Your task to perform on an android device: Open the phone app and click the voicemail tab. Image 0: 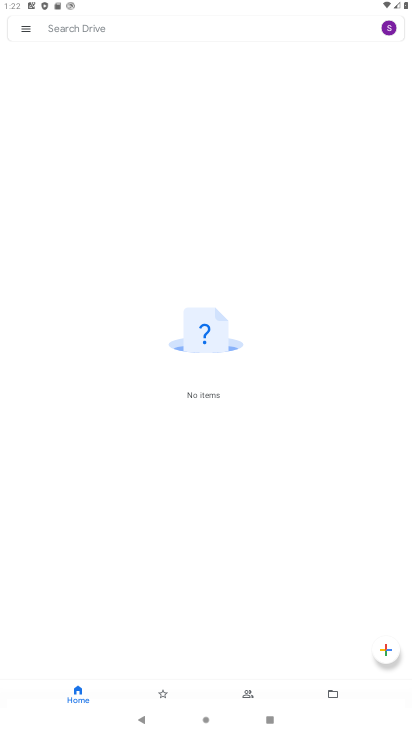
Step 0: press home button
Your task to perform on an android device: Open the phone app and click the voicemail tab. Image 1: 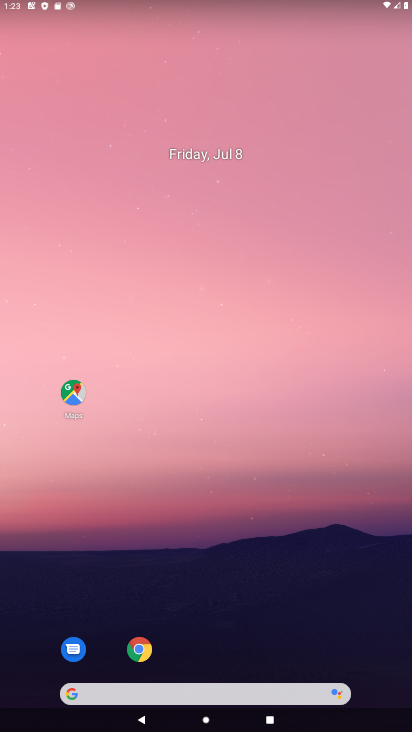
Step 1: drag from (23, 714) to (278, 147)
Your task to perform on an android device: Open the phone app and click the voicemail tab. Image 2: 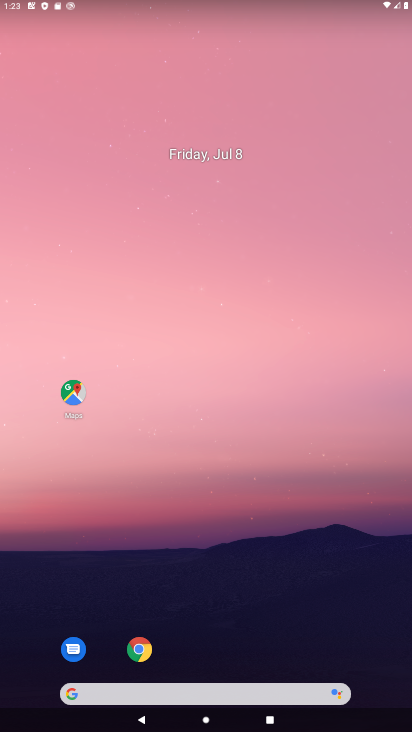
Step 2: drag from (45, 694) to (396, 0)
Your task to perform on an android device: Open the phone app and click the voicemail tab. Image 3: 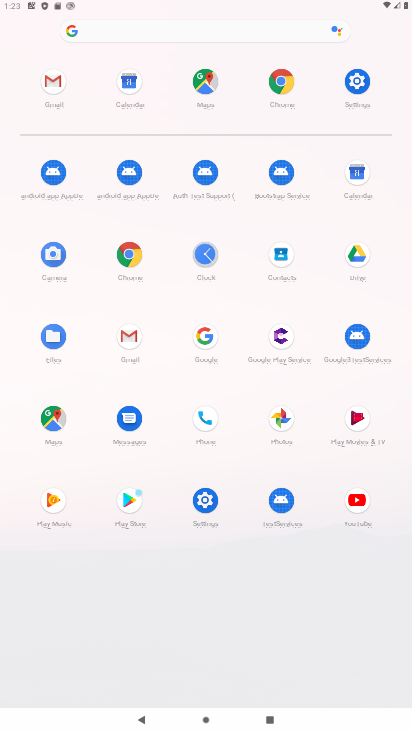
Step 3: click (198, 421)
Your task to perform on an android device: Open the phone app and click the voicemail tab. Image 4: 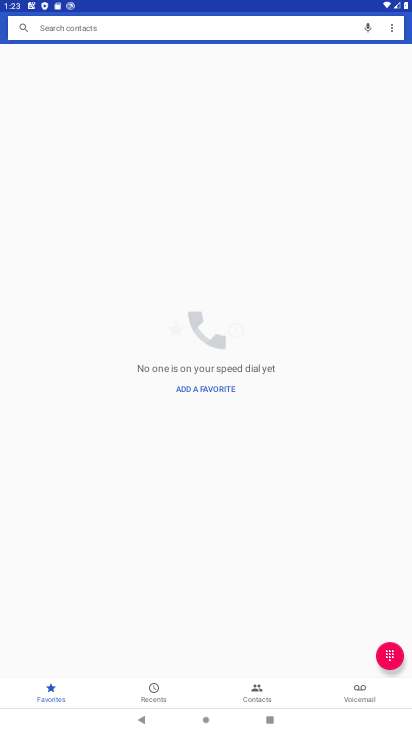
Step 4: click (342, 695)
Your task to perform on an android device: Open the phone app and click the voicemail tab. Image 5: 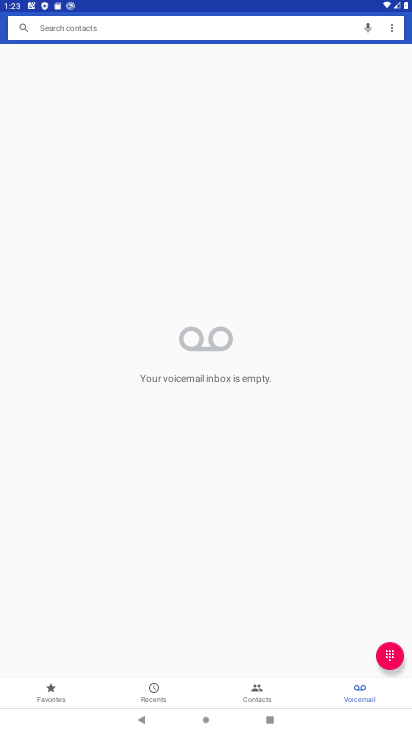
Step 5: task complete